Your task to perform on an android device: Open privacy settings Image 0: 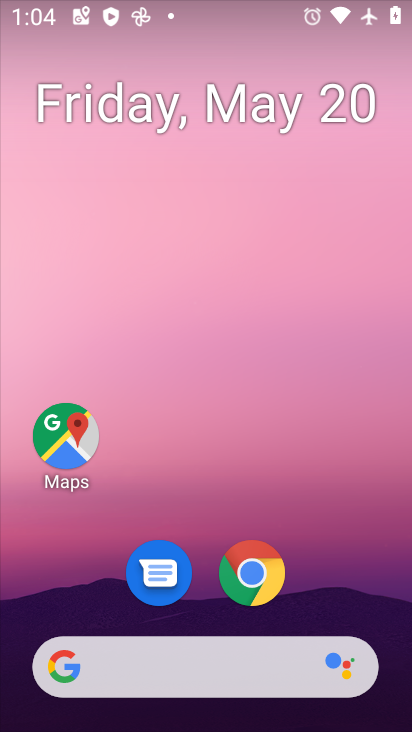
Step 0: drag from (316, 467) to (284, 75)
Your task to perform on an android device: Open privacy settings Image 1: 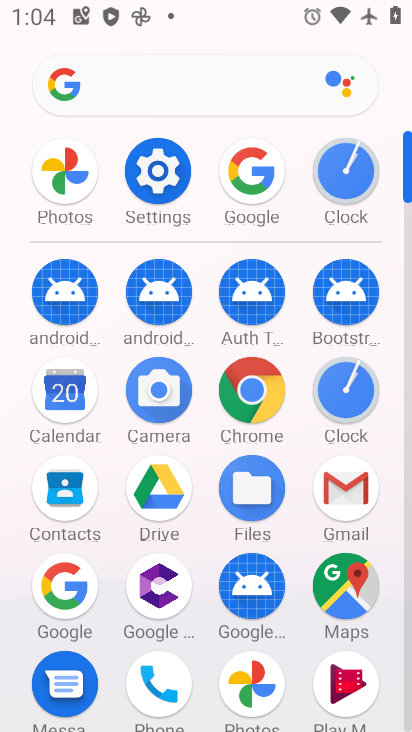
Step 1: click (160, 173)
Your task to perform on an android device: Open privacy settings Image 2: 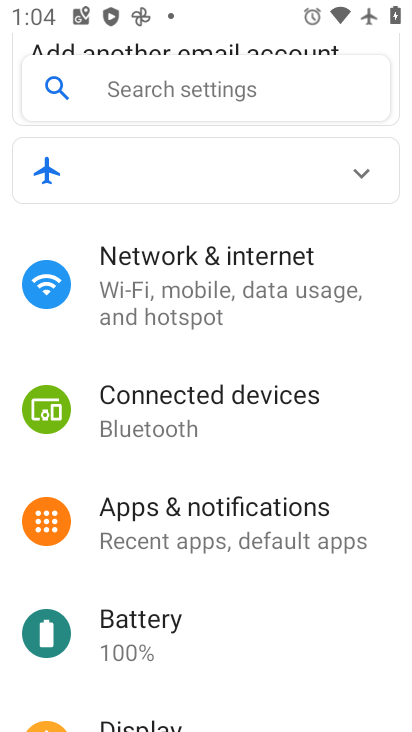
Step 2: drag from (244, 571) to (223, 41)
Your task to perform on an android device: Open privacy settings Image 3: 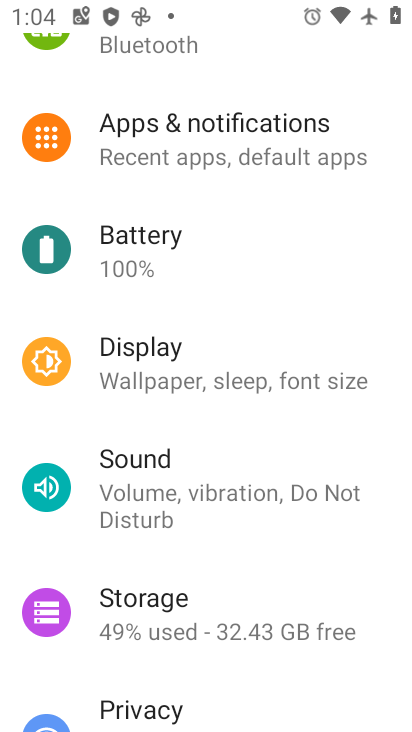
Step 3: drag from (258, 607) to (254, 252)
Your task to perform on an android device: Open privacy settings Image 4: 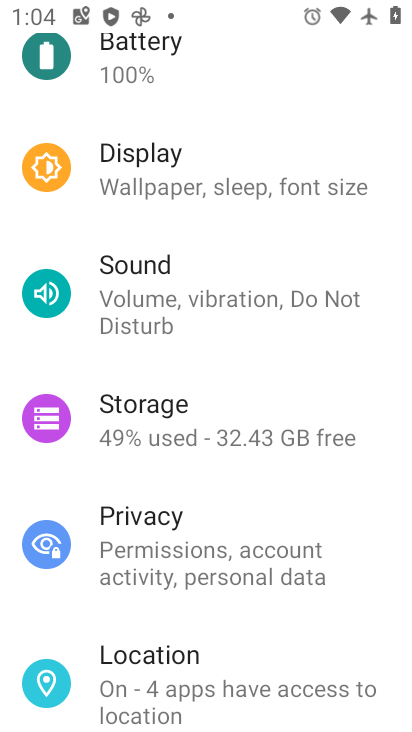
Step 4: click (223, 518)
Your task to perform on an android device: Open privacy settings Image 5: 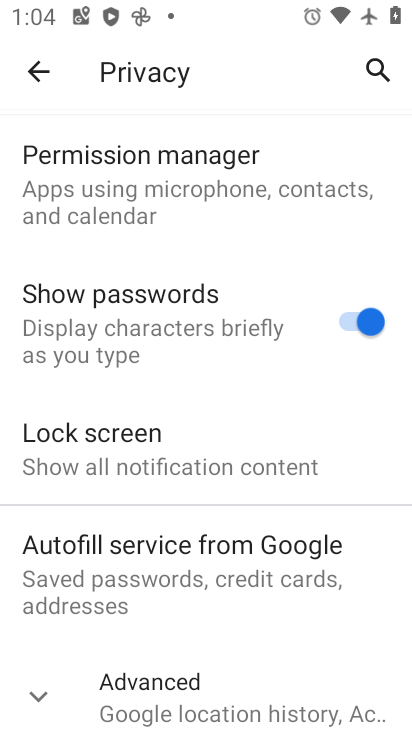
Step 5: task complete